Your task to perform on an android device: What's on my calendar tomorrow? Image 0: 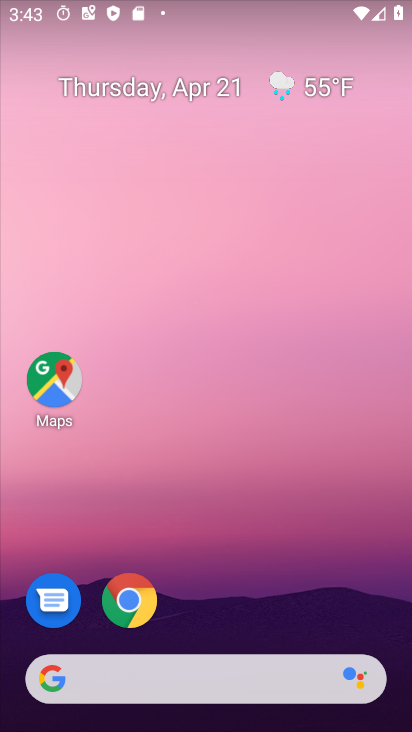
Step 0: drag from (170, 674) to (215, 273)
Your task to perform on an android device: What's on my calendar tomorrow? Image 1: 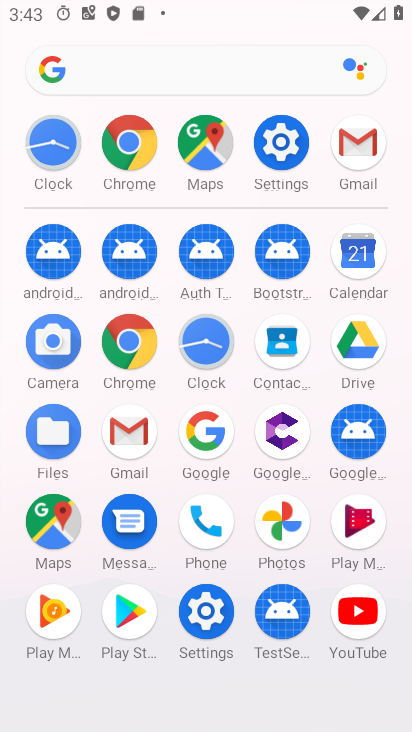
Step 1: click (358, 262)
Your task to perform on an android device: What's on my calendar tomorrow? Image 2: 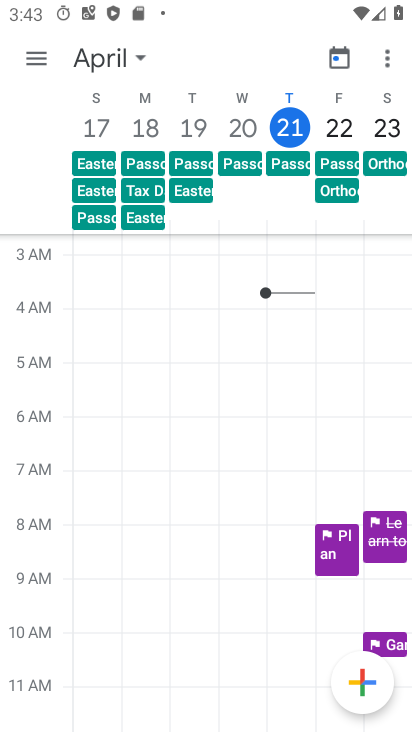
Step 2: click (111, 57)
Your task to perform on an android device: What's on my calendar tomorrow? Image 3: 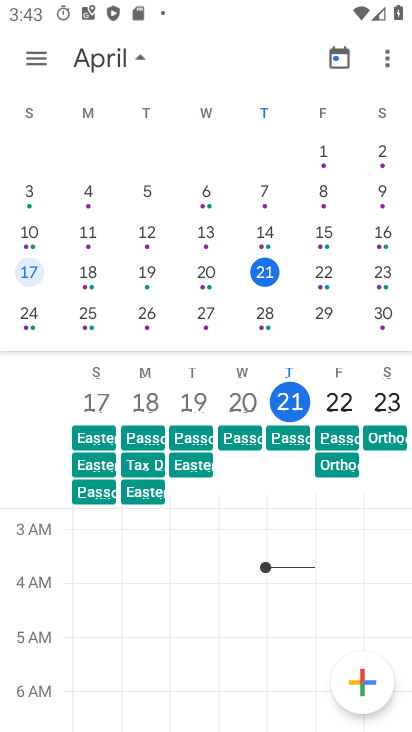
Step 3: click (323, 275)
Your task to perform on an android device: What's on my calendar tomorrow? Image 4: 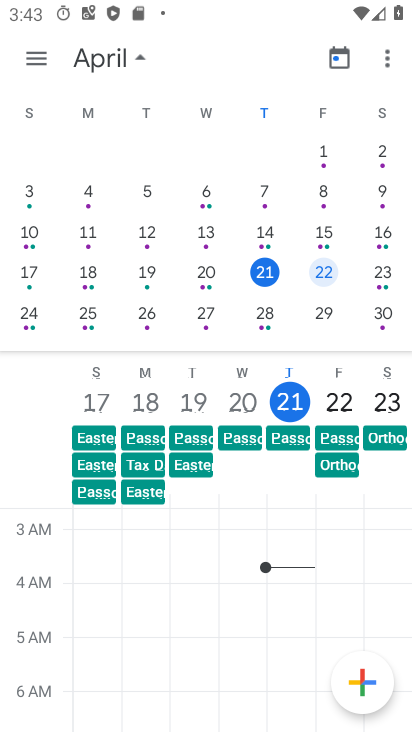
Step 4: click (35, 62)
Your task to perform on an android device: What's on my calendar tomorrow? Image 5: 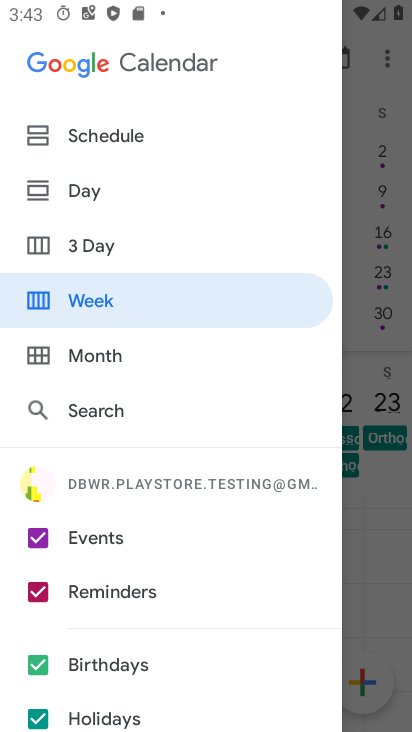
Step 5: click (102, 135)
Your task to perform on an android device: What's on my calendar tomorrow? Image 6: 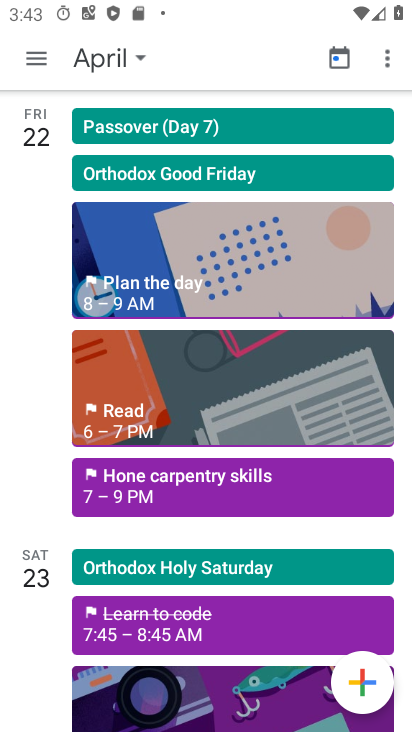
Step 6: click (165, 484)
Your task to perform on an android device: What's on my calendar tomorrow? Image 7: 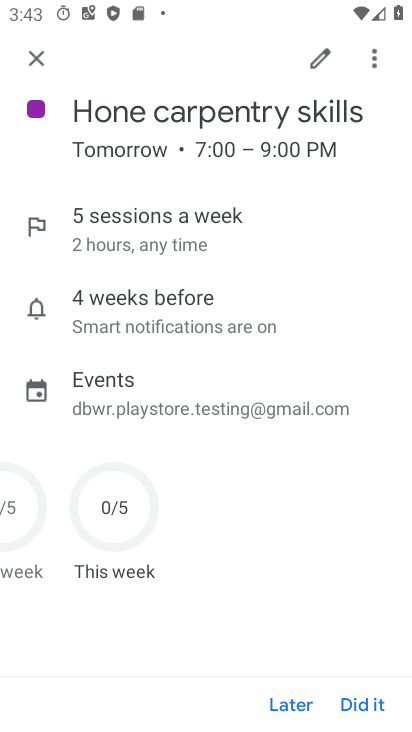
Step 7: task complete